Your task to perform on an android device: Is it going to rain this weekend? Image 0: 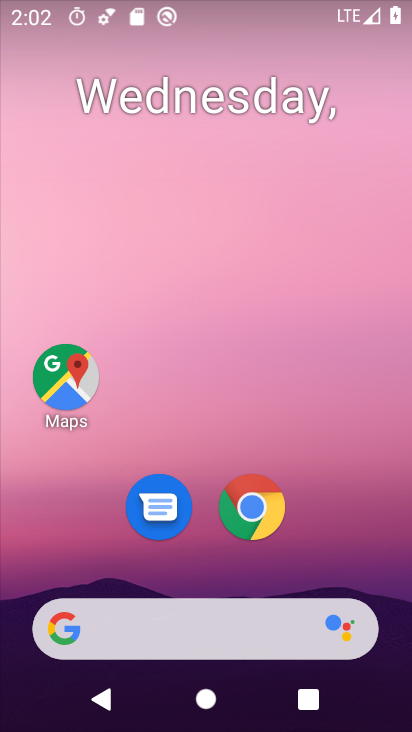
Step 0: click (239, 631)
Your task to perform on an android device: Is it going to rain this weekend? Image 1: 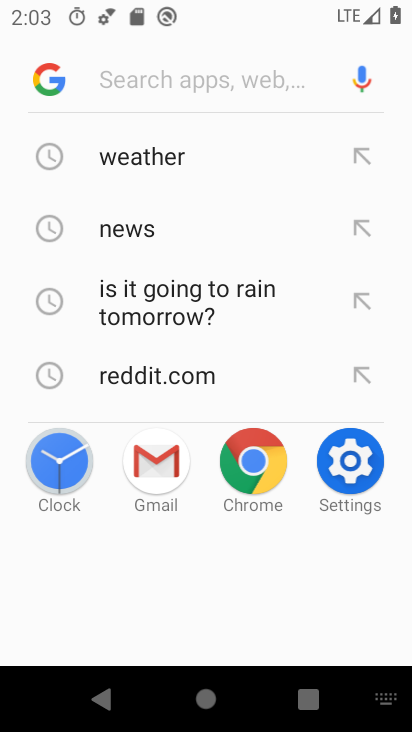
Step 1: type "is it going to rain this weekend "
Your task to perform on an android device: Is it going to rain this weekend? Image 2: 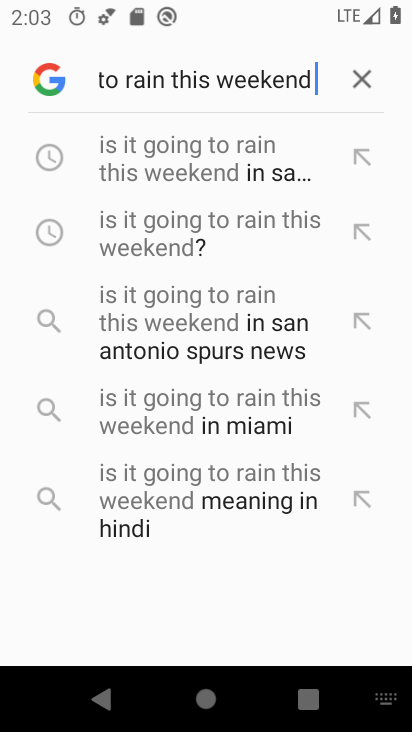
Step 2: click (181, 222)
Your task to perform on an android device: Is it going to rain this weekend? Image 3: 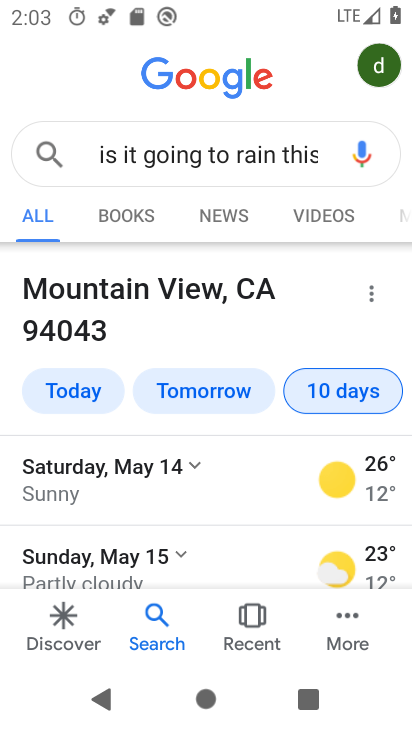
Step 3: task complete